Your task to perform on an android device: Open settings Image 0: 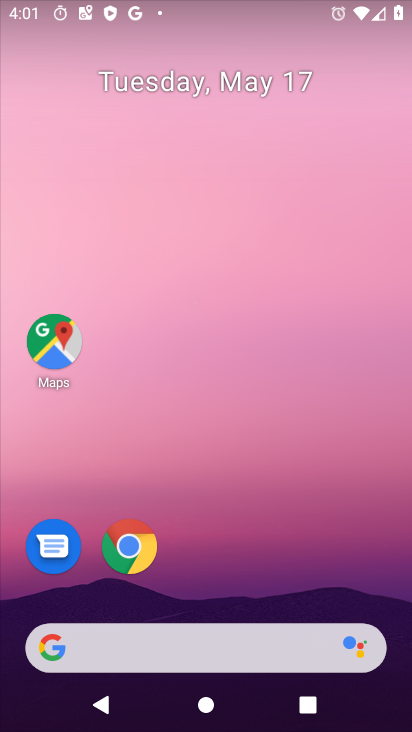
Step 0: drag from (391, 643) to (355, 309)
Your task to perform on an android device: Open settings Image 1: 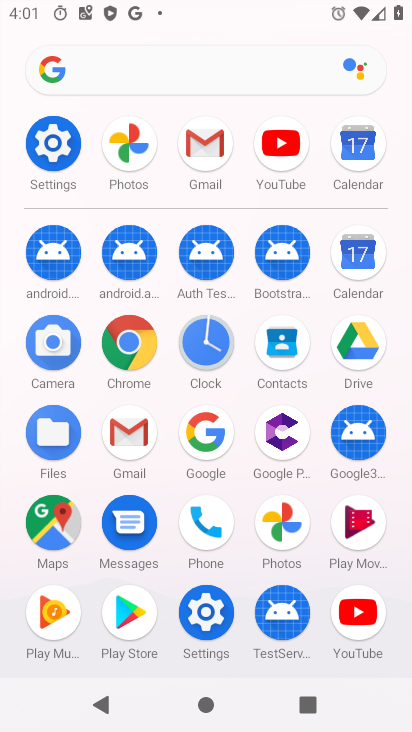
Step 1: click (39, 137)
Your task to perform on an android device: Open settings Image 2: 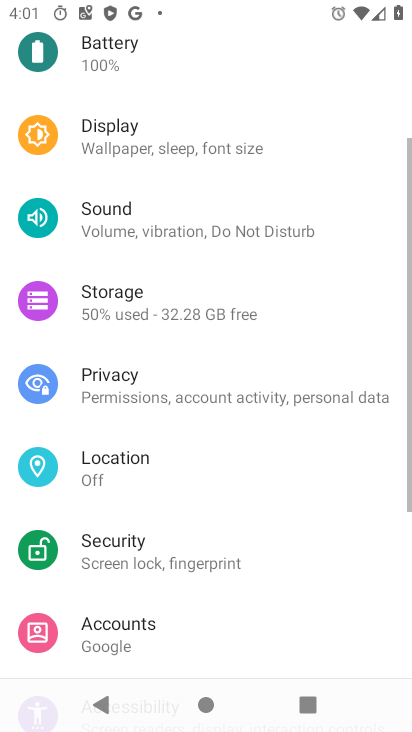
Step 2: task complete